Your task to perform on an android device: turn off location Image 0: 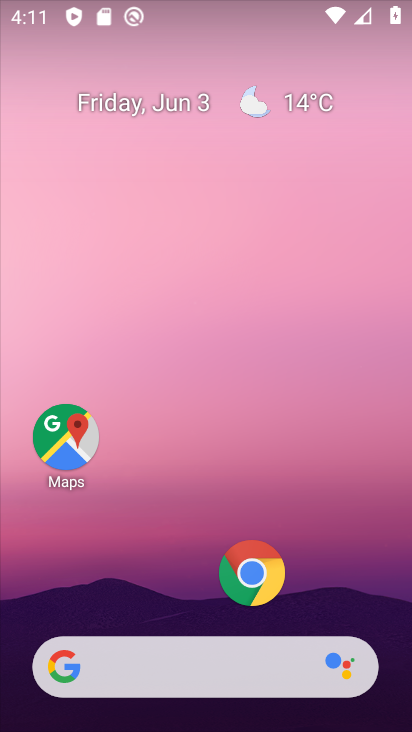
Step 0: drag from (147, 572) to (331, 14)
Your task to perform on an android device: turn off location Image 1: 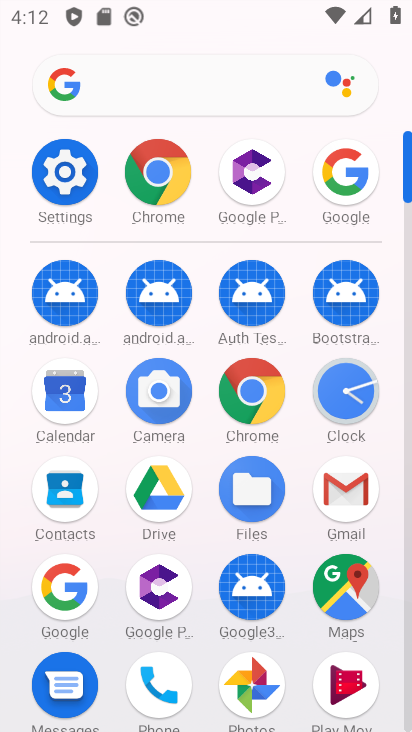
Step 1: click (72, 207)
Your task to perform on an android device: turn off location Image 2: 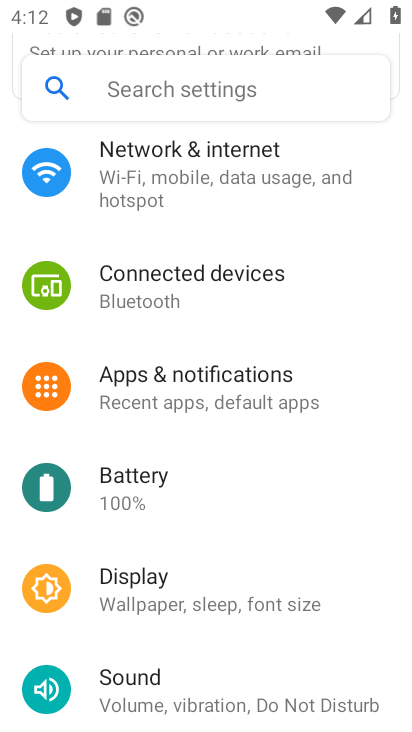
Step 2: drag from (270, 378) to (301, 163)
Your task to perform on an android device: turn off location Image 3: 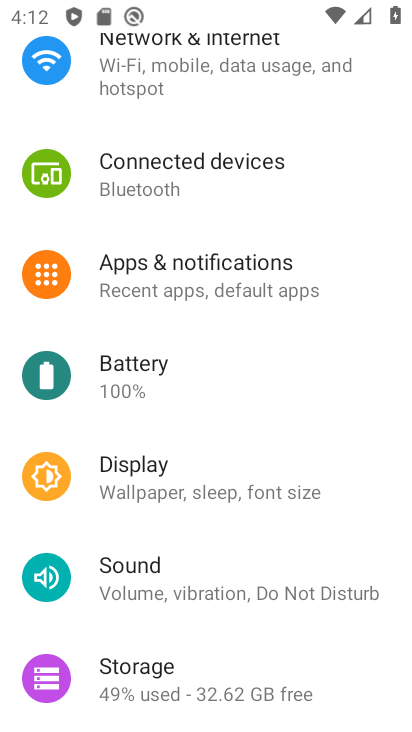
Step 3: drag from (151, 477) to (149, 0)
Your task to perform on an android device: turn off location Image 4: 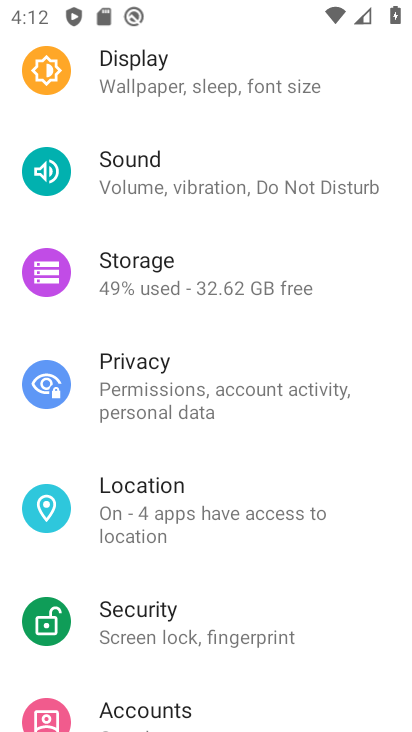
Step 4: click (153, 496)
Your task to perform on an android device: turn off location Image 5: 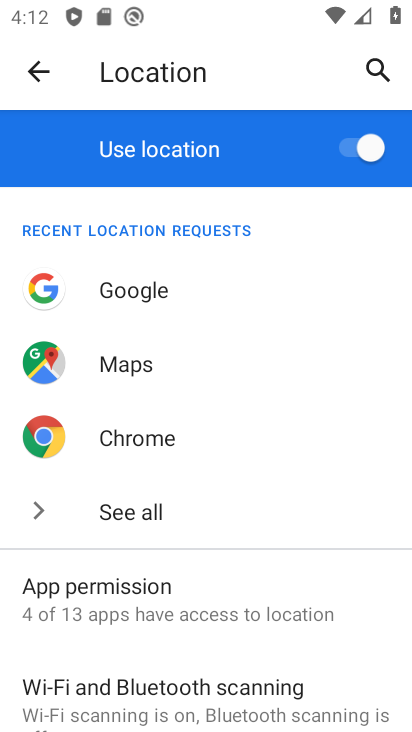
Step 5: drag from (99, 616) to (121, 173)
Your task to perform on an android device: turn off location Image 6: 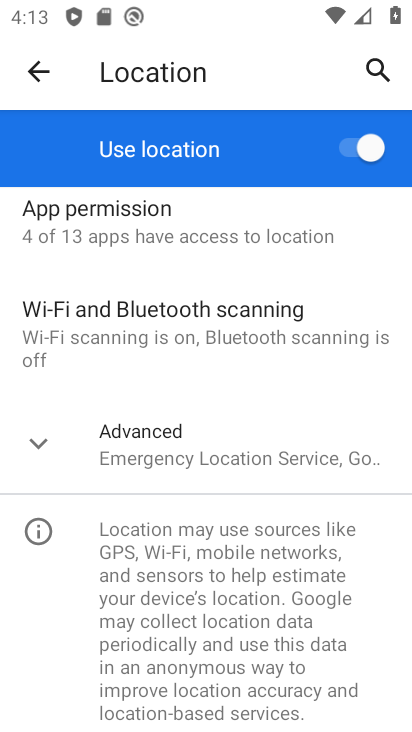
Step 6: click (55, 448)
Your task to perform on an android device: turn off location Image 7: 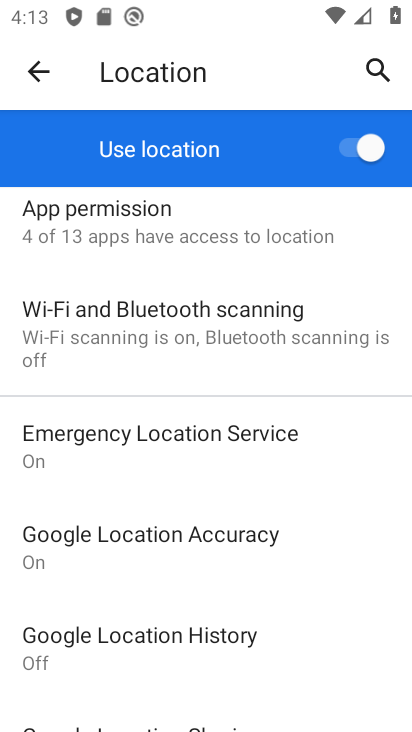
Step 7: drag from (220, 554) to (259, 190)
Your task to perform on an android device: turn off location Image 8: 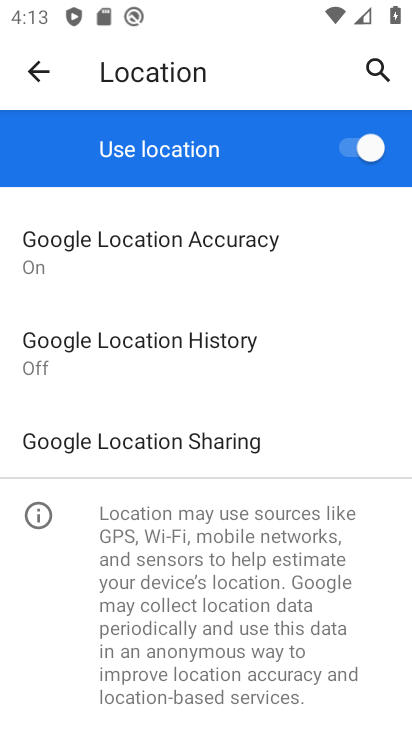
Step 8: click (311, 149)
Your task to perform on an android device: turn off location Image 9: 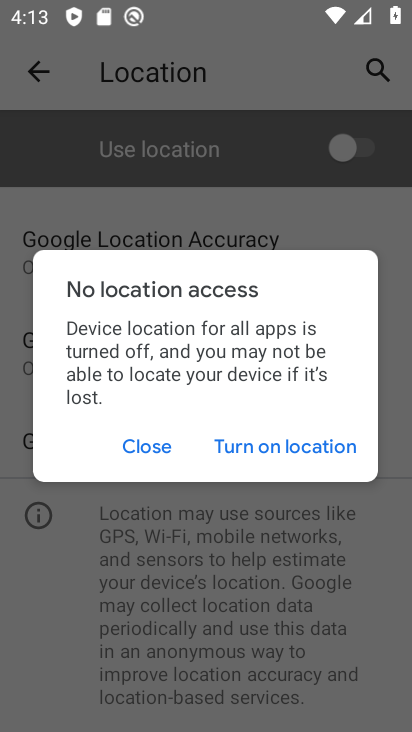
Step 9: task complete